Your task to perform on an android device: change the clock display to digital Image 0: 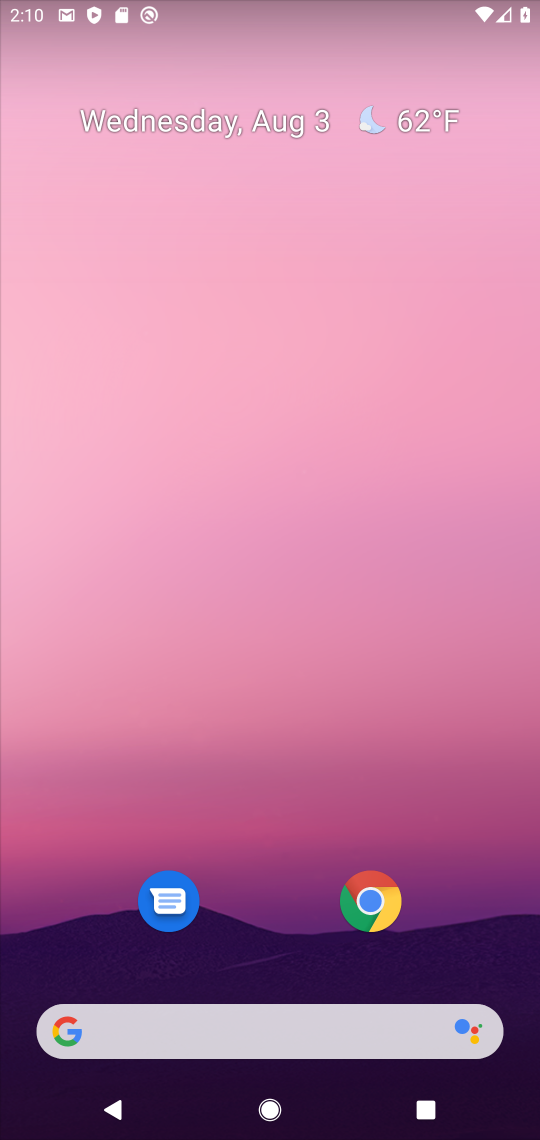
Step 0: drag from (209, 1003) to (272, 417)
Your task to perform on an android device: change the clock display to digital Image 1: 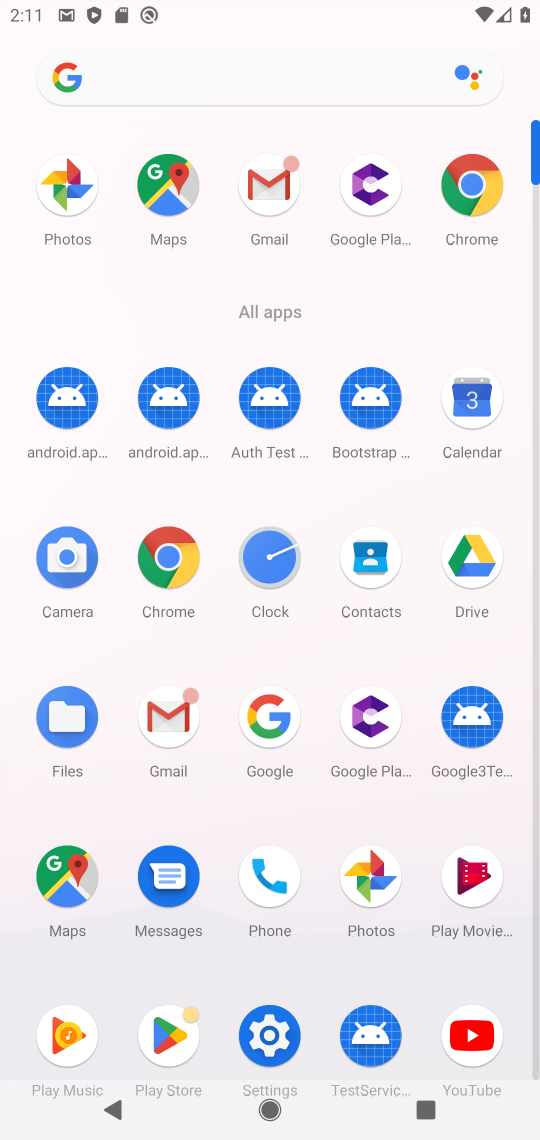
Step 1: click (263, 563)
Your task to perform on an android device: change the clock display to digital Image 2: 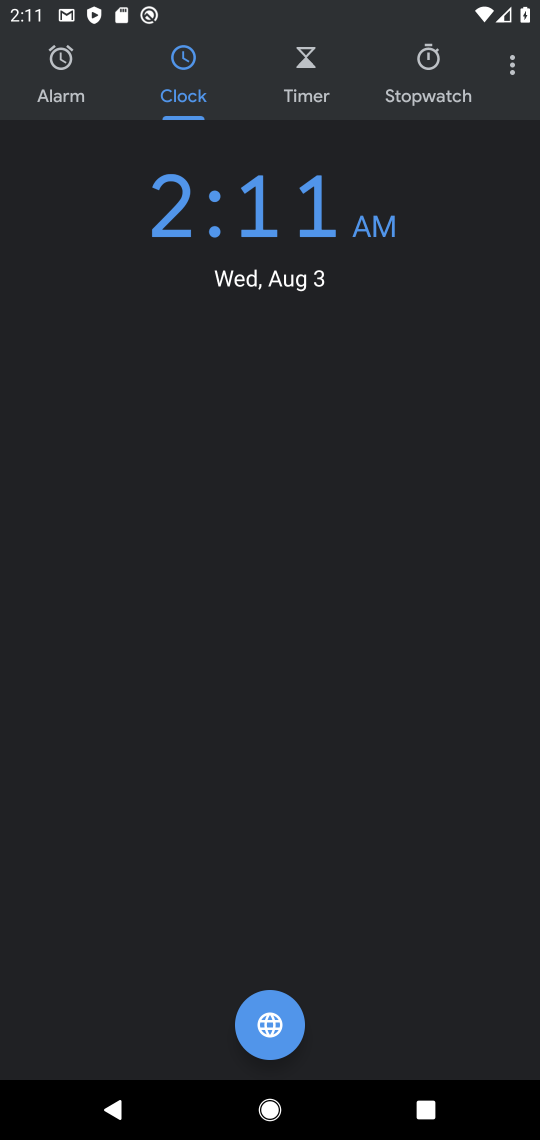
Step 2: click (509, 65)
Your task to perform on an android device: change the clock display to digital Image 3: 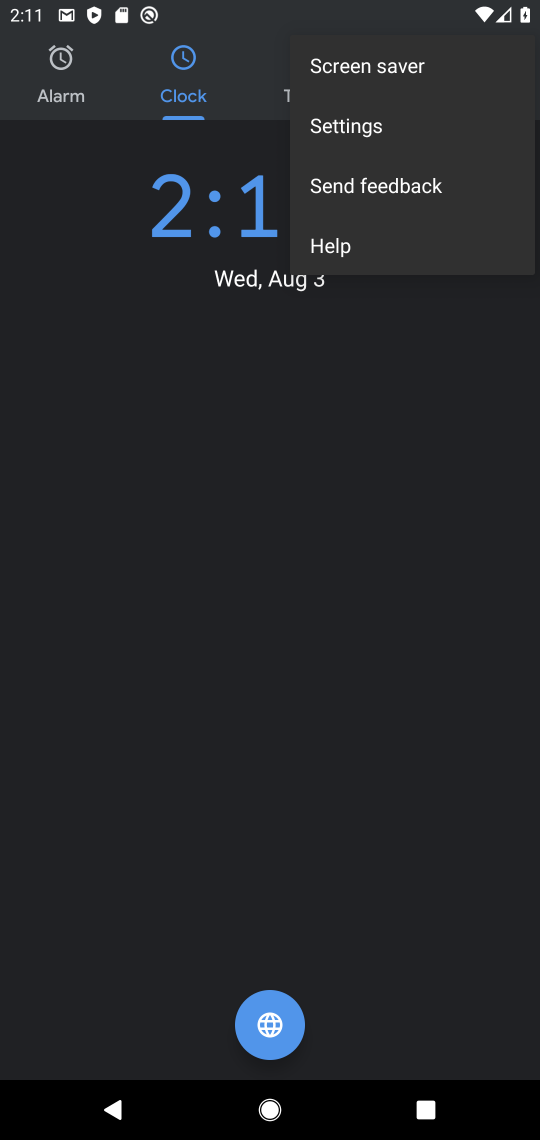
Step 3: click (392, 123)
Your task to perform on an android device: change the clock display to digital Image 4: 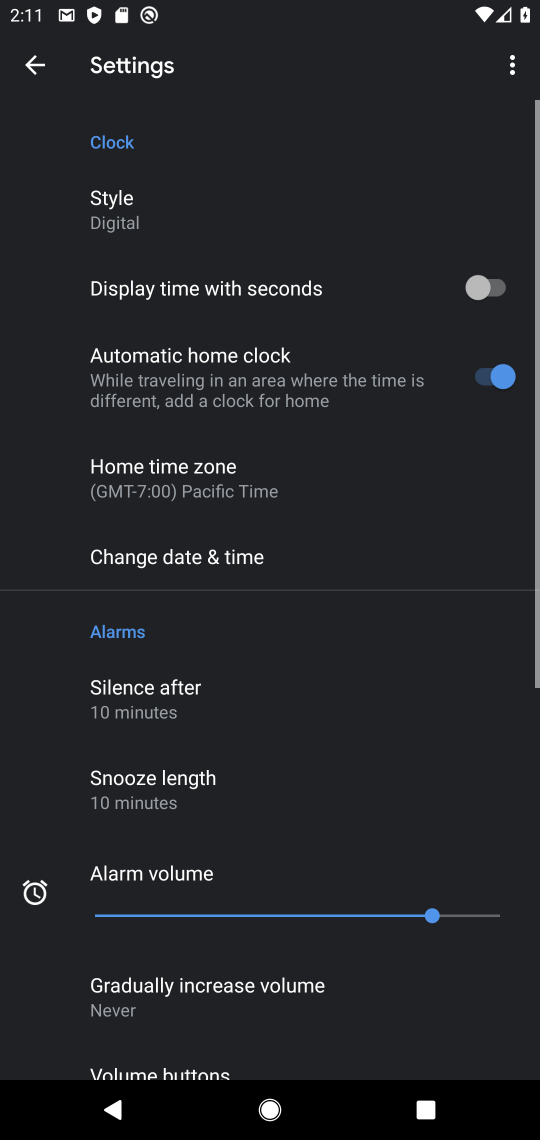
Step 4: click (161, 208)
Your task to perform on an android device: change the clock display to digital Image 5: 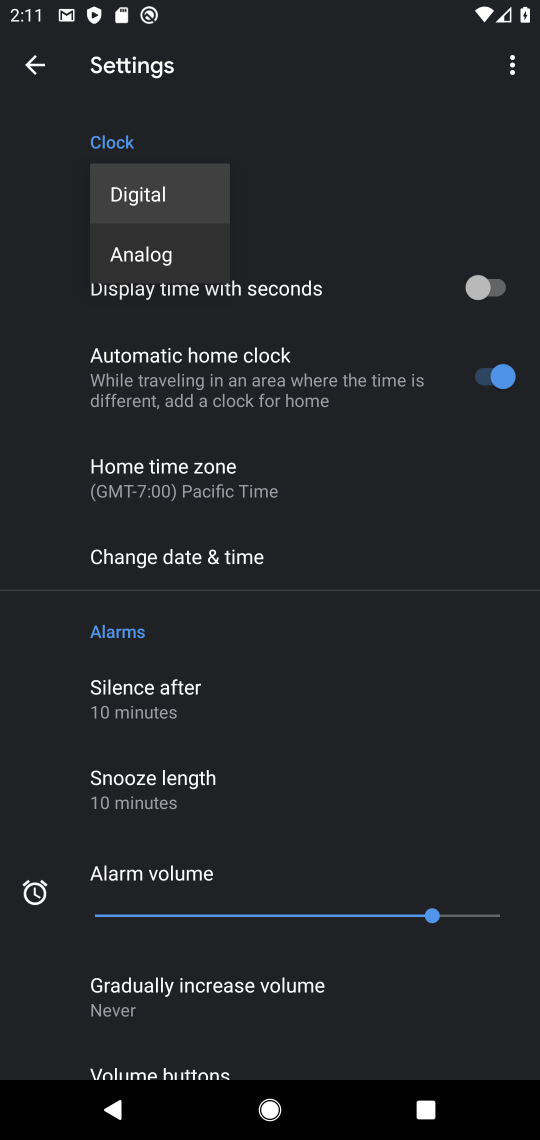
Step 5: click (157, 238)
Your task to perform on an android device: change the clock display to digital Image 6: 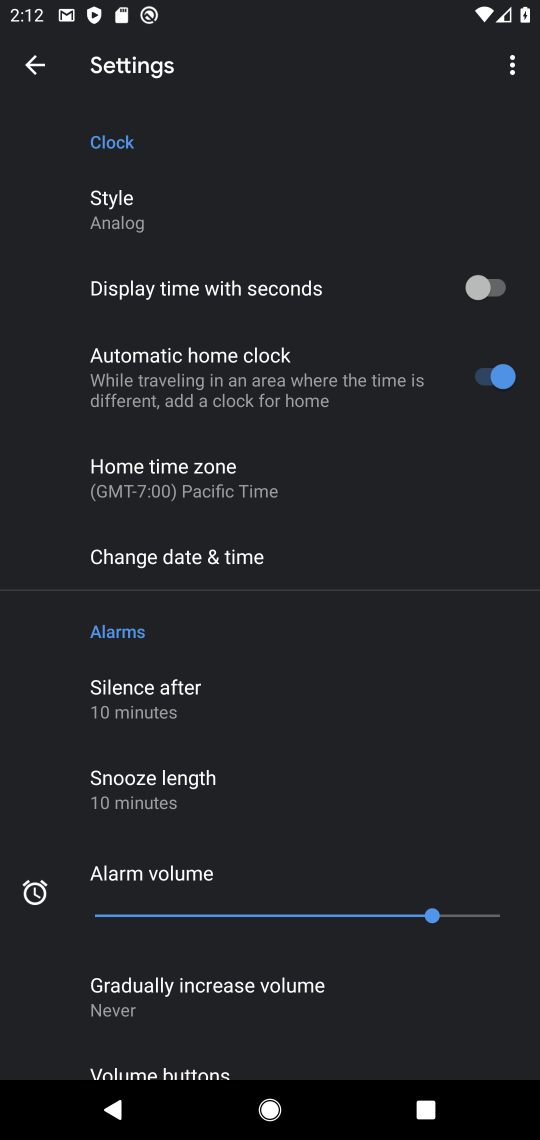
Step 6: click (123, 195)
Your task to perform on an android device: change the clock display to digital Image 7: 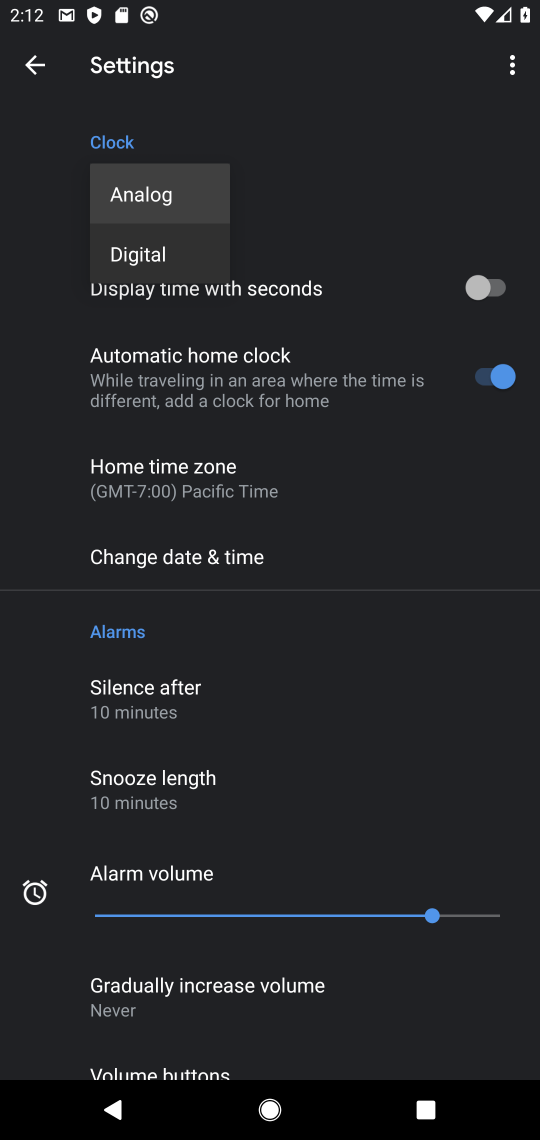
Step 7: click (148, 242)
Your task to perform on an android device: change the clock display to digital Image 8: 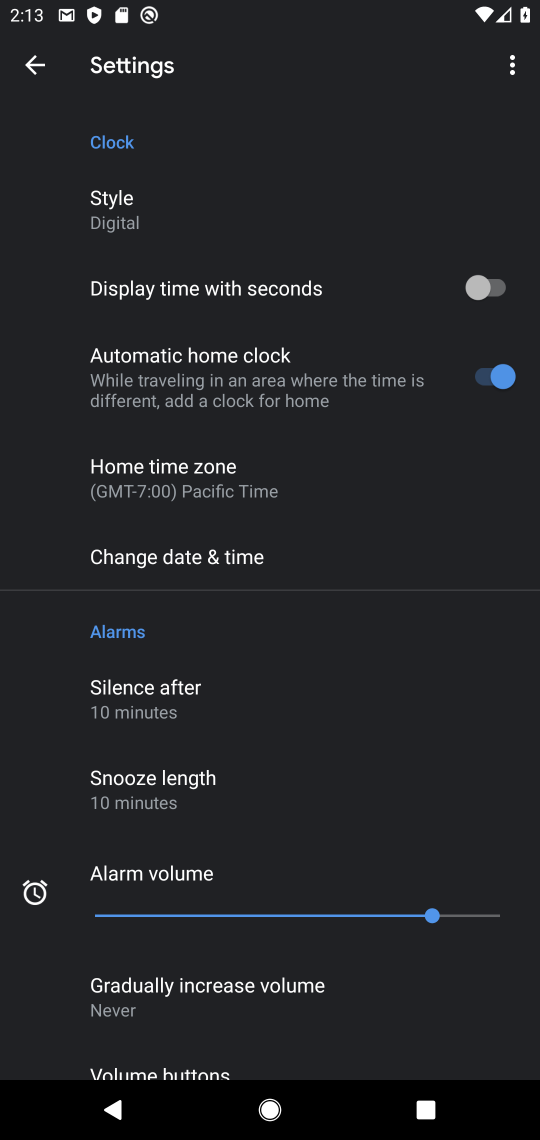
Step 8: task complete